Your task to perform on an android device: Search for acer nitro on amazon.com, select the first entry, add it to the cart, then select checkout. Image 0: 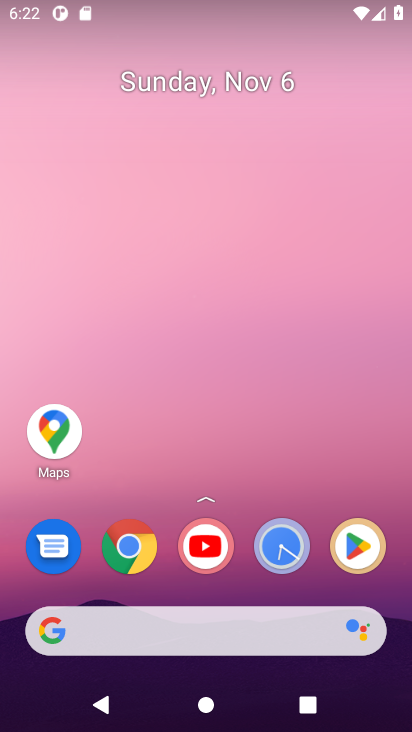
Step 0: click (136, 550)
Your task to perform on an android device: Search for acer nitro on amazon.com, select the first entry, add it to the cart, then select checkout. Image 1: 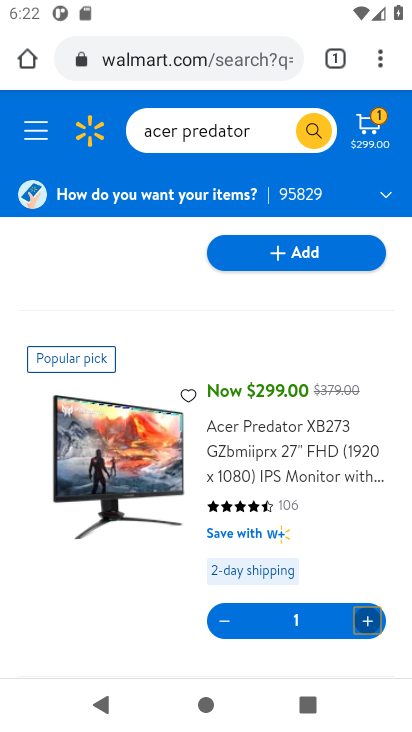
Step 1: click (184, 56)
Your task to perform on an android device: Search for acer nitro on amazon.com, select the first entry, add it to the cart, then select checkout. Image 2: 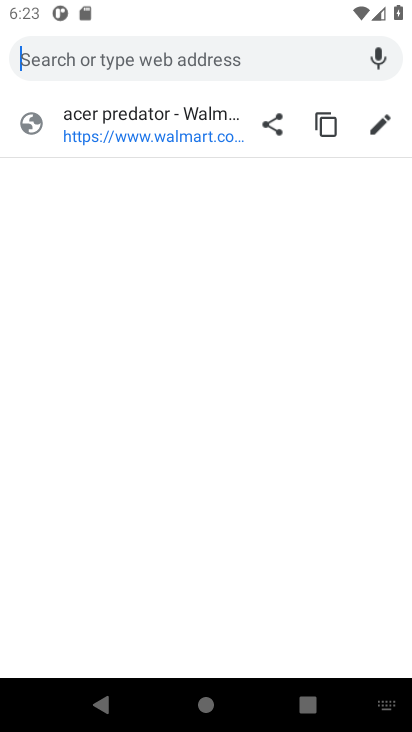
Step 2: type "amazon.com"
Your task to perform on an android device: Search for acer nitro on amazon.com, select the first entry, add it to the cart, then select checkout. Image 3: 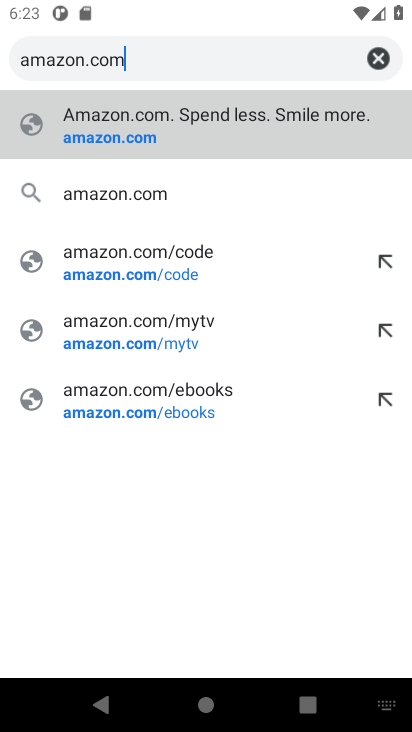
Step 3: click (101, 140)
Your task to perform on an android device: Search for acer nitro on amazon.com, select the first entry, add it to the cart, then select checkout. Image 4: 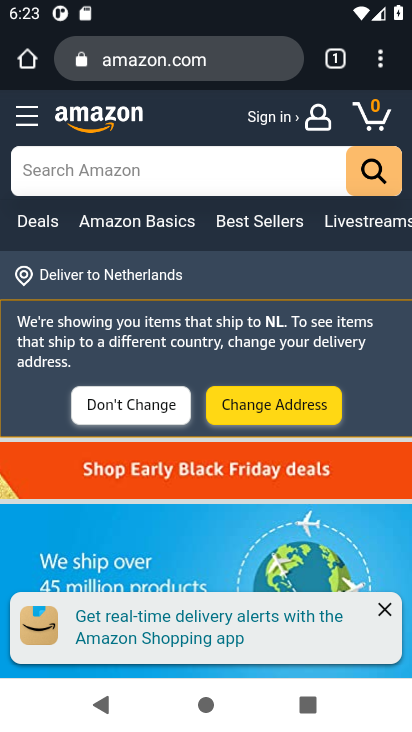
Step 4: click (151, 175)
Your task to perform on an android device: Search for acer nitro on amazon.com, select the first entry, add it to the cart, then select checkout. Image 5: 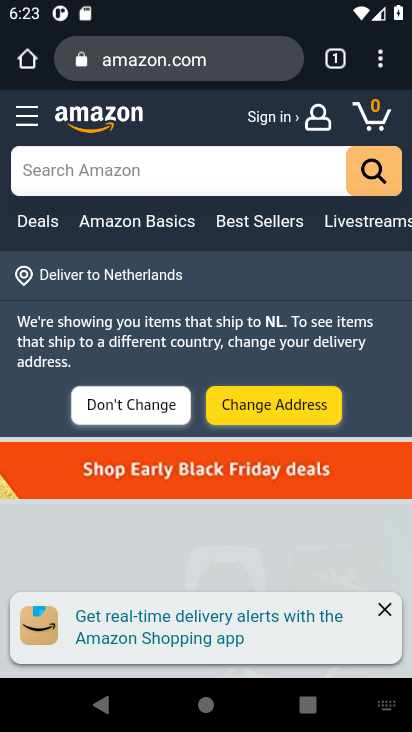
Step 5: type "acer nitro "
Your task to perform on an android device: Search for acer nitro on amazon.com, select the first entry, add it to the cart, then select checkout. Image 6: 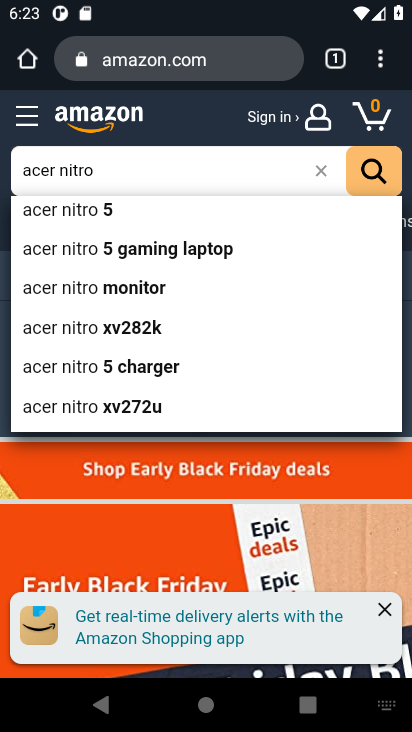
Step 6: click (369, 172)
Your task to perform on an android device: Search for acer nitro on amazon.com, select the first entry, add it to the cart, then select checkout. Image 7: 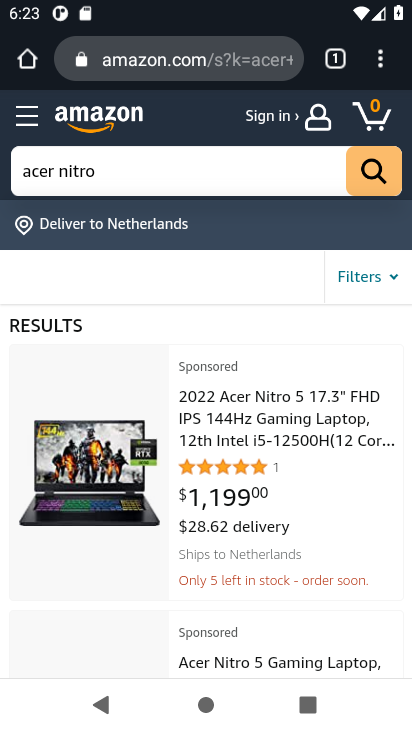
Step 7: click (228, 475)
Your task to perform on an android device: Search for acer nitro on amazon.com, select the first entry, add it to the cart, then select checkout. Image 8: 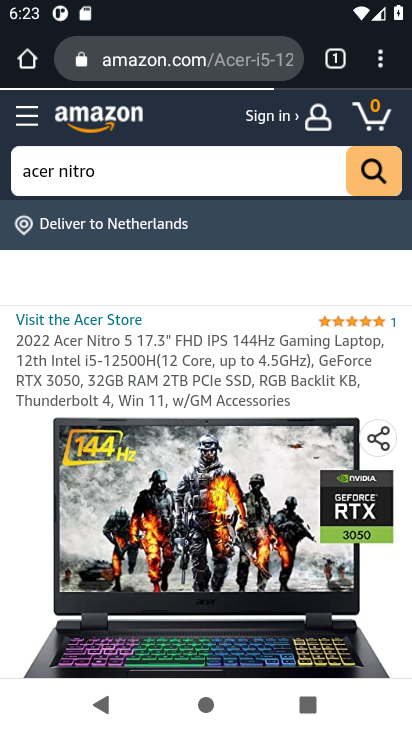
Step 8: drag from (209, 481) to (193, 246)
Your task to perform on an android device: Search for acer nitro on amazon.com, select the first entry, add it to the cart, then select checkout. Image 9: 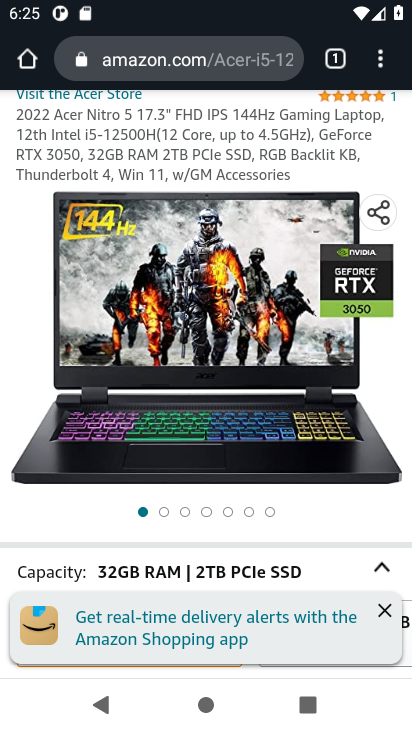
Step 9: drag from (173, 547) to (176, 284)
Your task to perform on an android device: Search for acer nitro on amazon.com, select the first entry, add it to the cart, then select checkout. Image 10: 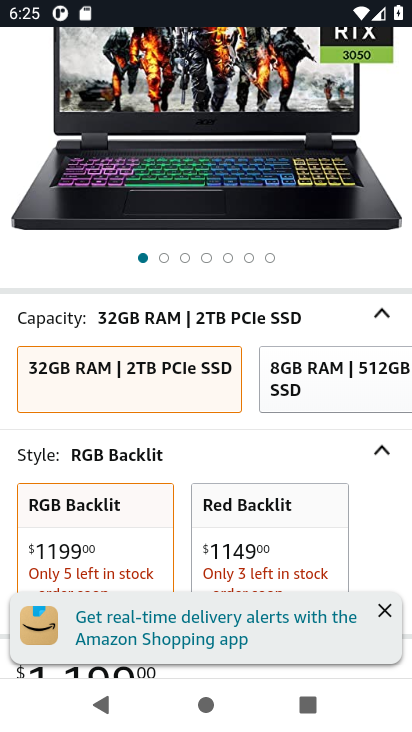
Step 10: drag from (164, 522) to (178, 281)
Your task to perform on an android device: Search for acer nitro on amazon.com, select the first entry, add it to the cart, then select checkout. Image 11: 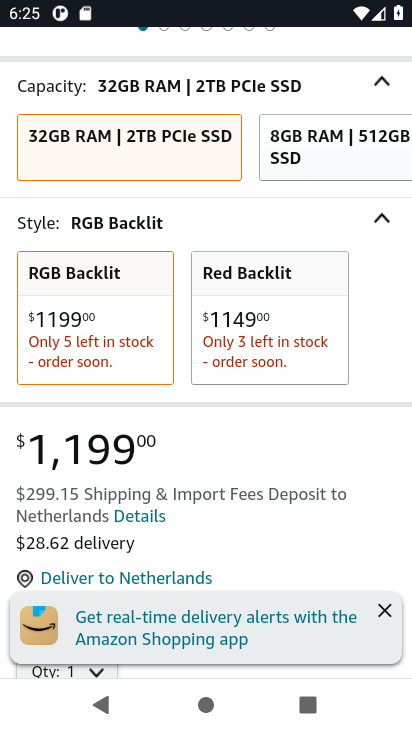
Step 11: drag from (173, 495) to (175, 313)
Your task to perform on an android device: Search for acer nitro on amazon.com, select the first entry, add it to the cart, then select checkout. Image 12: 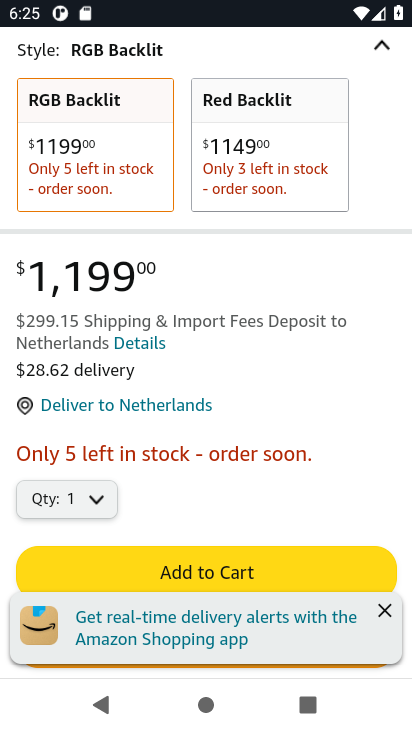
Step 12: click (206, 569)
Your task to perform on an android device: Search for acer nitro on amazon.com, select the first entry, add it to the cart, then select checkout. Image 13: 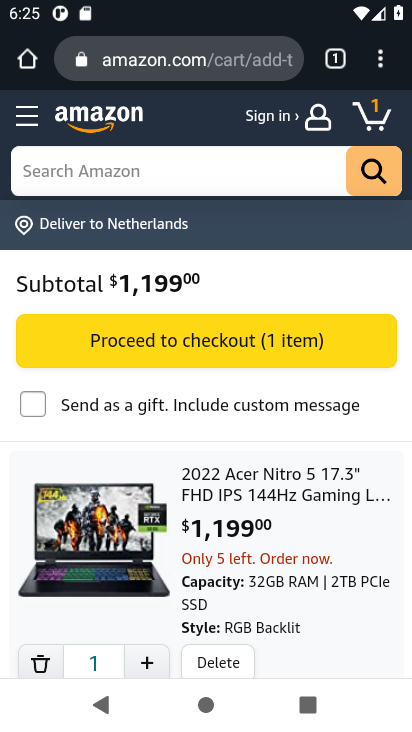
Step 13: click (181, 345)
Your task to perform on an android device: Search for acer nitro on amazon.com, select the first entry, add it to the cart, then select checkout. Image 14: 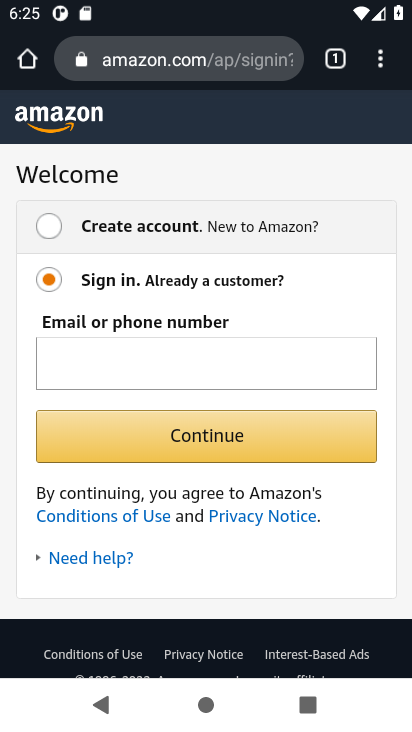
Step 14: task complete